Your task to perform on an android device: open app "Speedtest by Ookla" (install if not already installed) and enter user name: "hyena@outlook.com" and password: "terminators" Image 0: 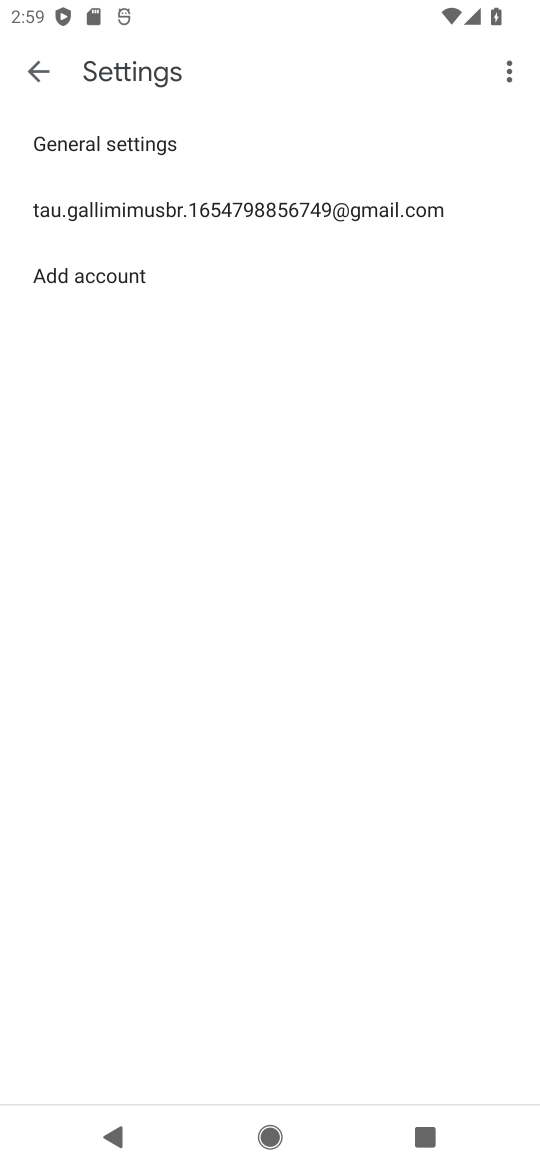
Step 0: press home button
Your task to perform on an android device: open app "Speedtest by Ookla" (install if not already installed) and enter user name: "hyena@outlook.com" and password: "terminators" Image 1: 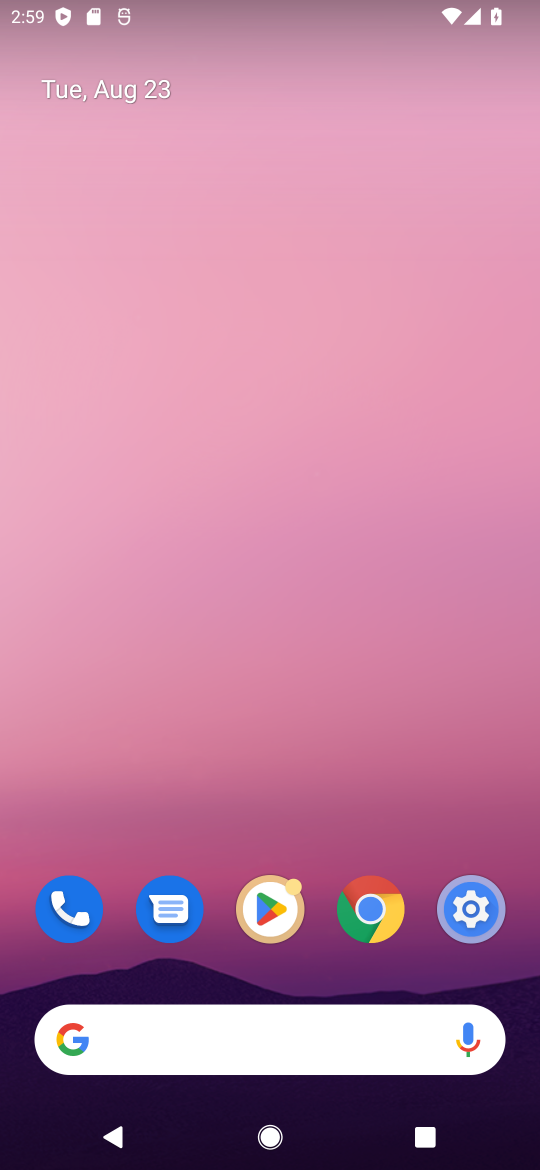
Step 1: click (265, 904)
Your task to perform on an android device: open app "Speedtest by Ookla" (install if not already installed) and enter user name: "hyena@outlook.com" and password: "terminators" Image 2: 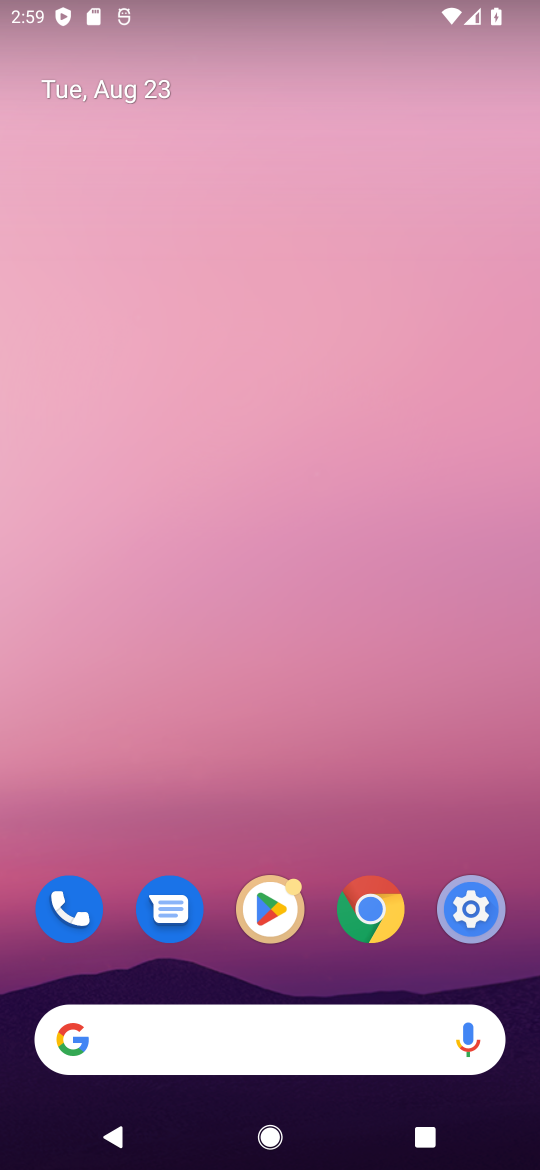
Step 2: click (271, 902)
Your task to perform on an android device: open app "Speedtest by Ookla" (install if not already installed) and enter user name: "hyena@outlook.com" and password: "terminators" Image 3: 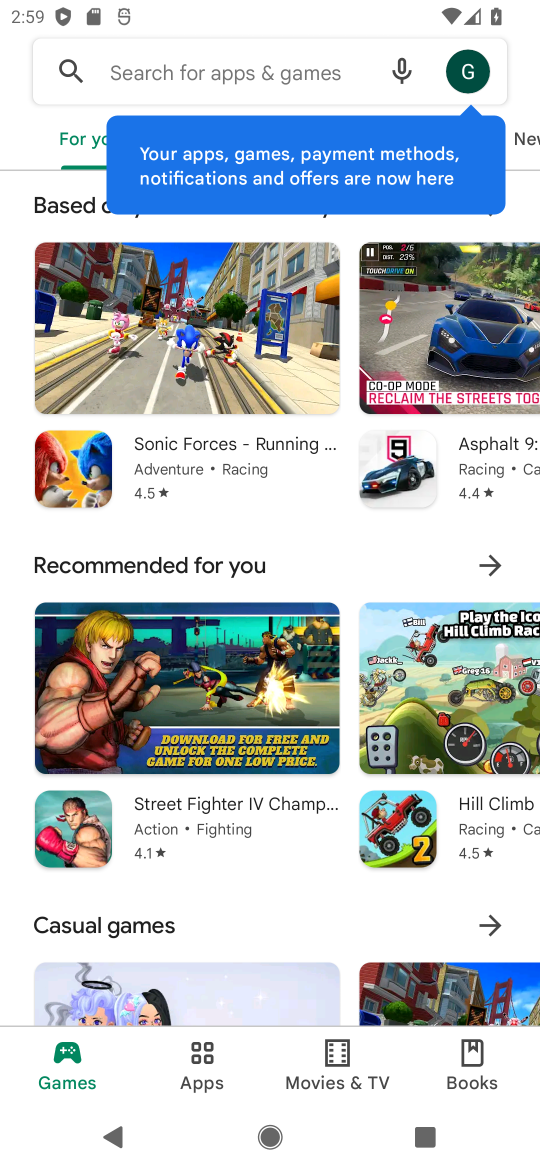
Step 3: click (161, 63)
Your task to perform on an android device: open app "Speedtest by Ookla" (install if not already installed) and enter user name: "hyena@outlook.com" and password: "terminators" Image 4: 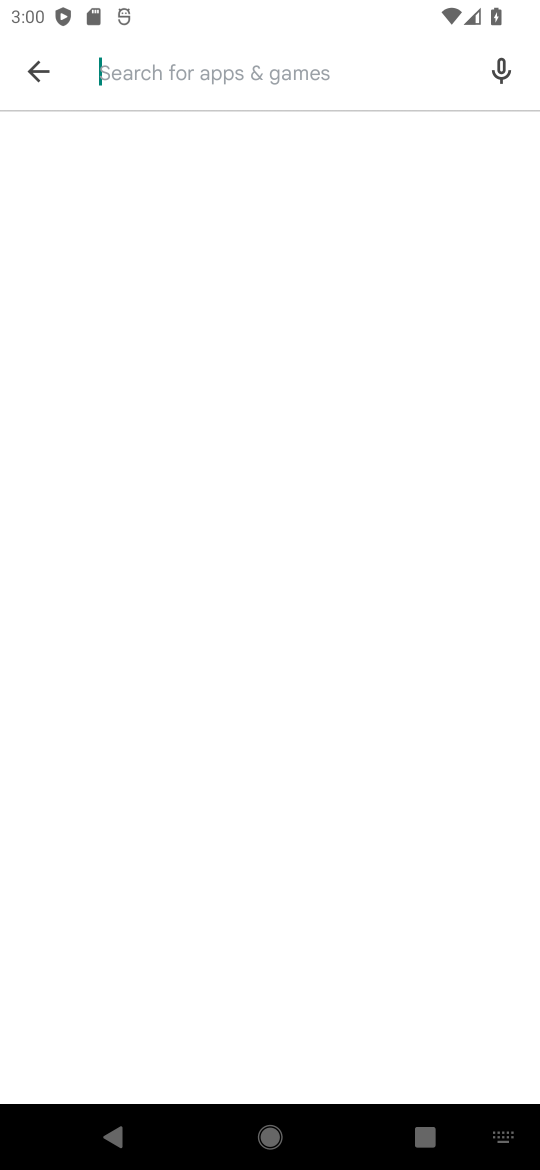
Step 4: type "Speedtest by Ookla"
Your task to perform on an android device: open app "Speedtest by Ookla" (install if not already installed) and enter user name: "hyena@outlook.com" and password: "terminators" Image 5: 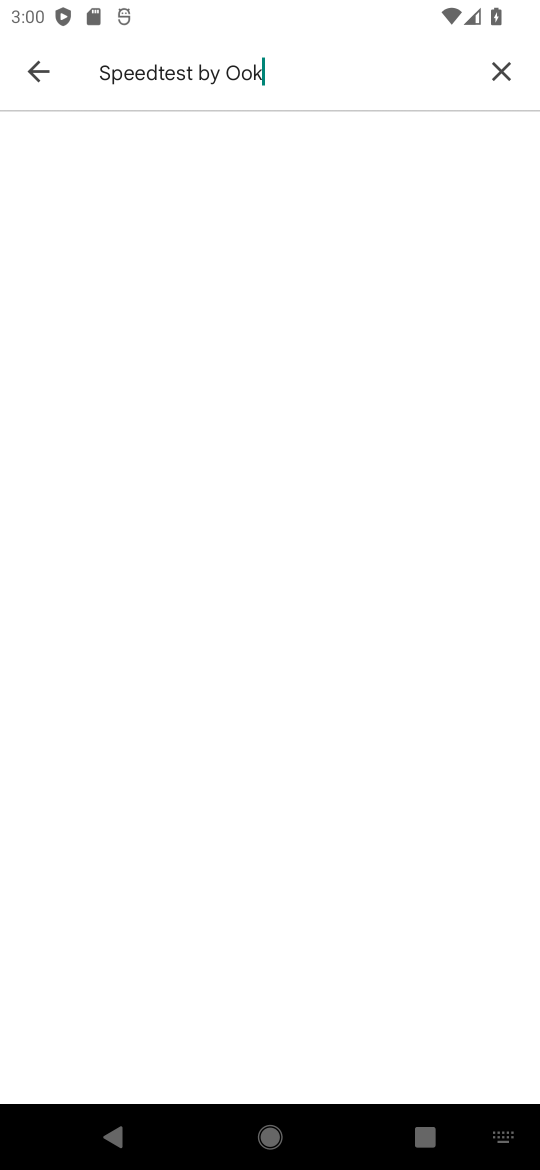
Step 5: type ""
Your task to perform on an android device: open app "Speedtest by Ookla" (install if not already installed) and enter user name: "hyena@outlook.com" and password: "terminators" Image 6: 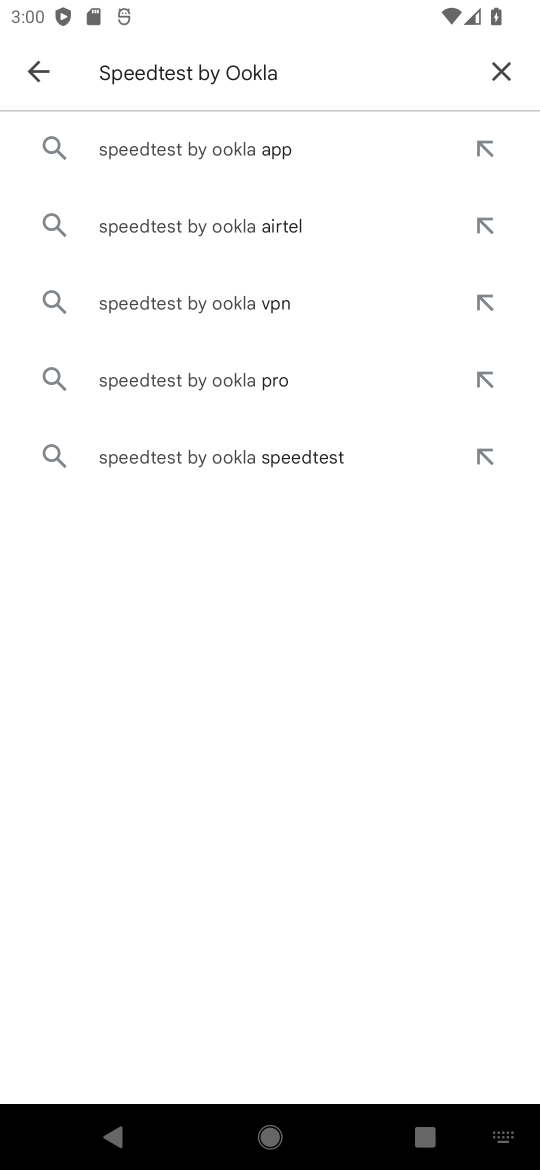
Step 6: click (169, 157)
Your task to perform on an android device: open app "Speedtest by Ookla" (install if not already installed) and enter user name: "hyena@outlook.com" and password: "terminators" Image 7: 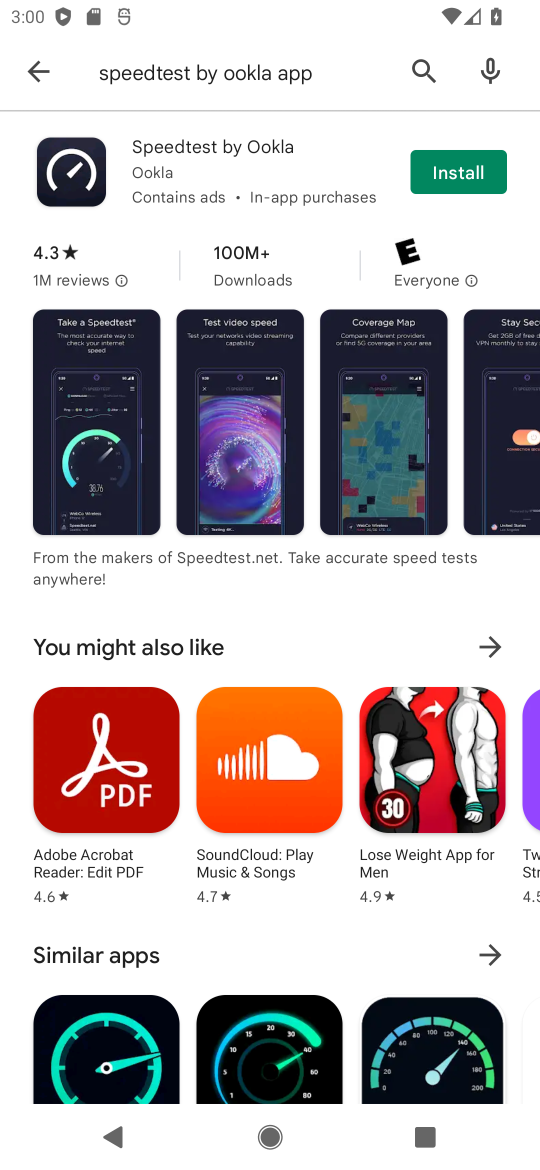
Step 7: click (456, 169)
Your task to perform on an android device: open app "Speedtest by Ookla" (install if not already installed) and enter user name: "hyena@outlook.com" and password: "terminators" Image 8: 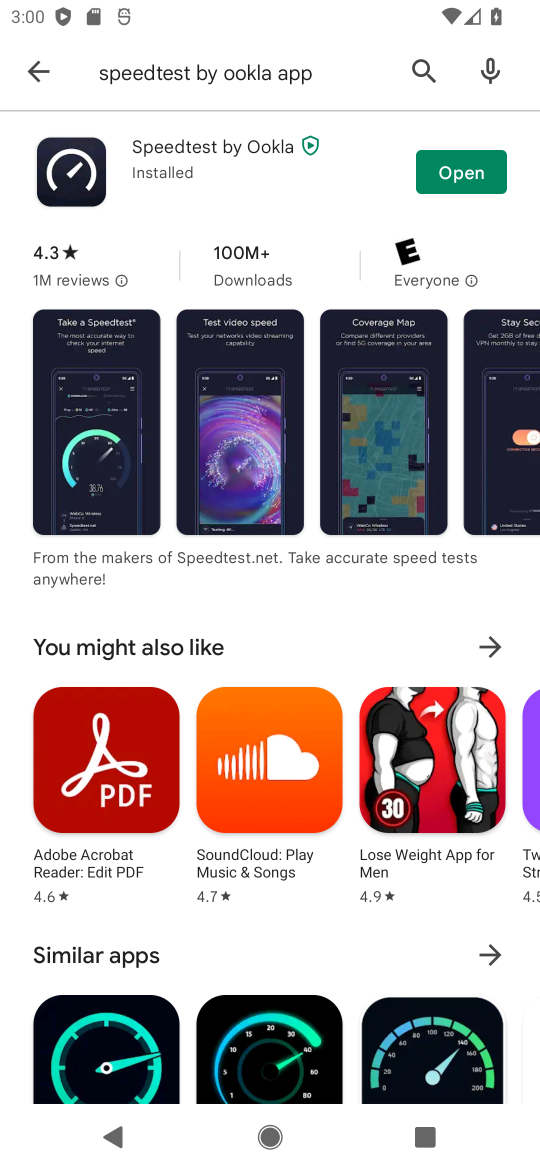
Step 8: click (461, 167)
Your task to perform on an android device: open app "Speedtest by Ookla" (install if not already installed) and enter user name: "hyena@outlook.com" and password: "terminators" Image 9: 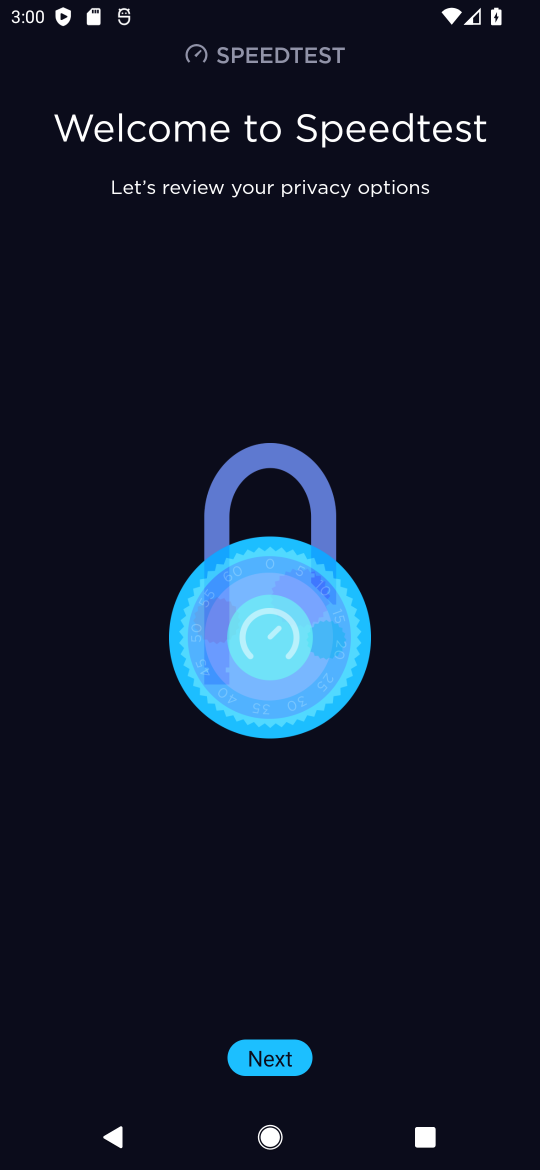
Step 9: click (271, 1055)
Your task to perform on an android device: open app "Speedtest by Ookla" (install if not already installed) and enter user name: "hyena@outlook.com" and password: "terminators" Image 10: 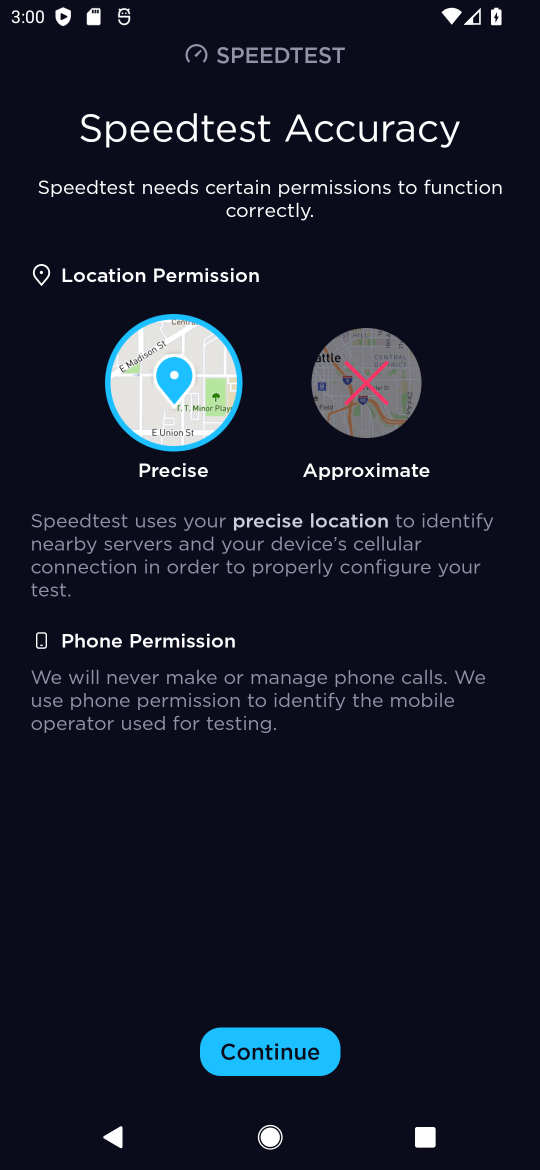
Step 10: click (271, 1055)
Your task to perform on an android device: open app "Speedtest by Ookla" (install if not already installed) and enter user name: "hyena@outlook.com" and password: "terminators" Image 11: 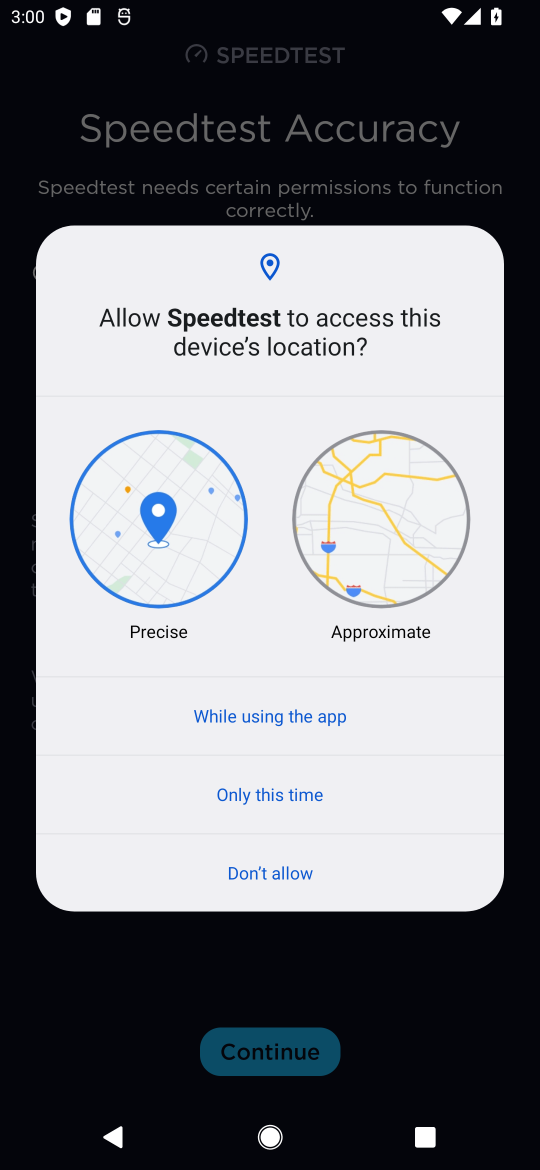
Step 11: click (262, 706)
Your task to perform on an android device: open app "Speedtest by Ookla" (install if not already installed) and enter user name: "hyena@outlook.com" and password: "terminators" Image 12: 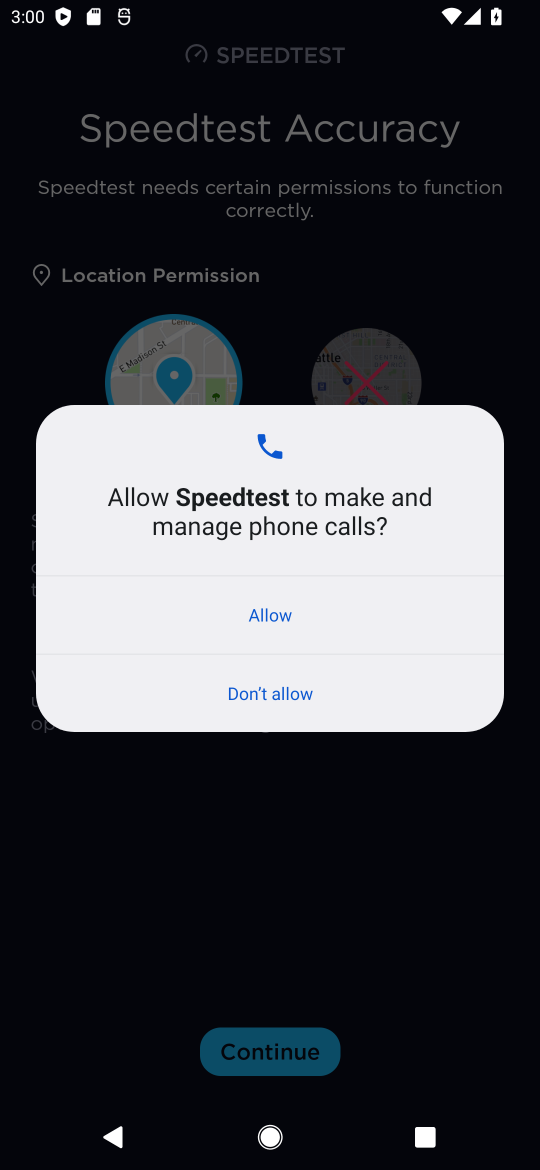
Step 12: click (259, 606)
Your task to perform on an android device: open app "Speedtest by Ookla" (install if not already installed) and enter user name: "hyena@outlook.com" and password: "terminators" Image 13: 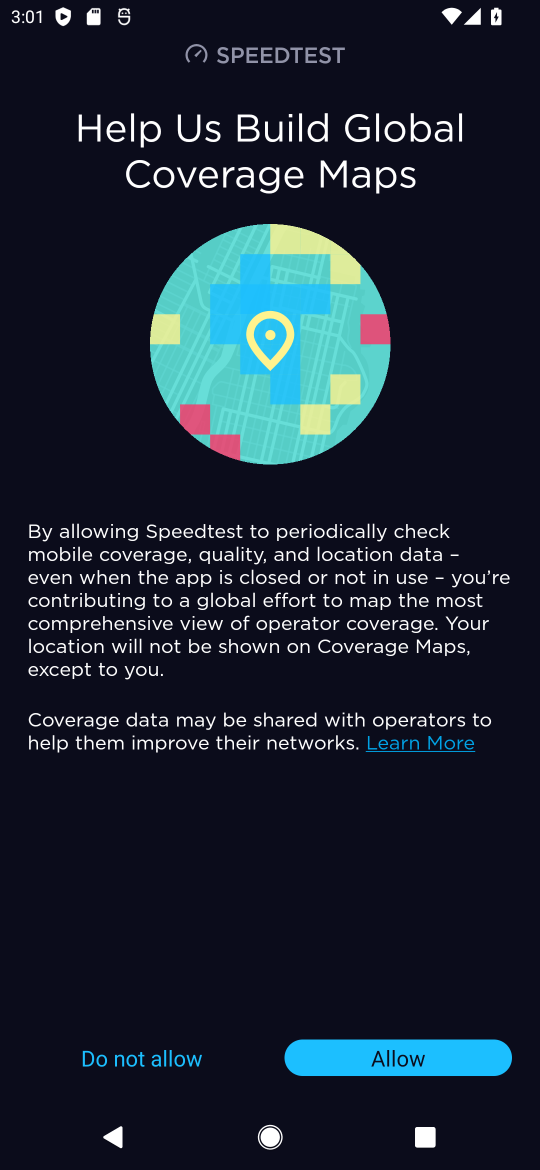
Step 13: click (405, 1058)
Your task to perform on an android device: open app "Speedtest by Ookla" (install if not already installed) and enter user name: "hyena@outlook.com" and password: "terminators" Image 14: 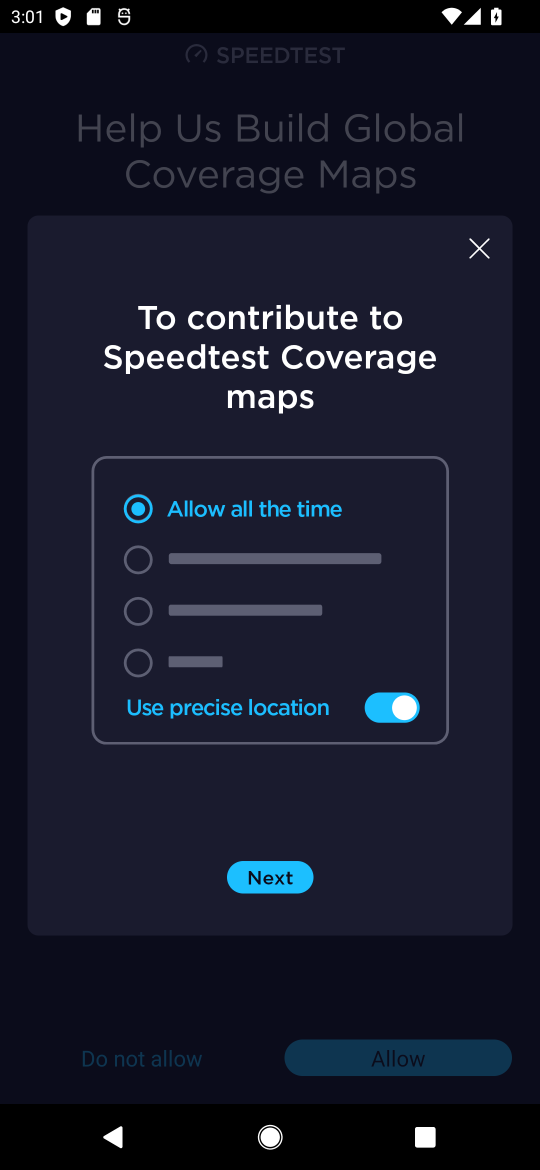
Step 14: click (275, 873)
Your task to perform on an android device: open app "Speedtest by Ookla" (install if not already installed) and enter user name: "hyena@outlook.com" and password: "terminators" Image 15: 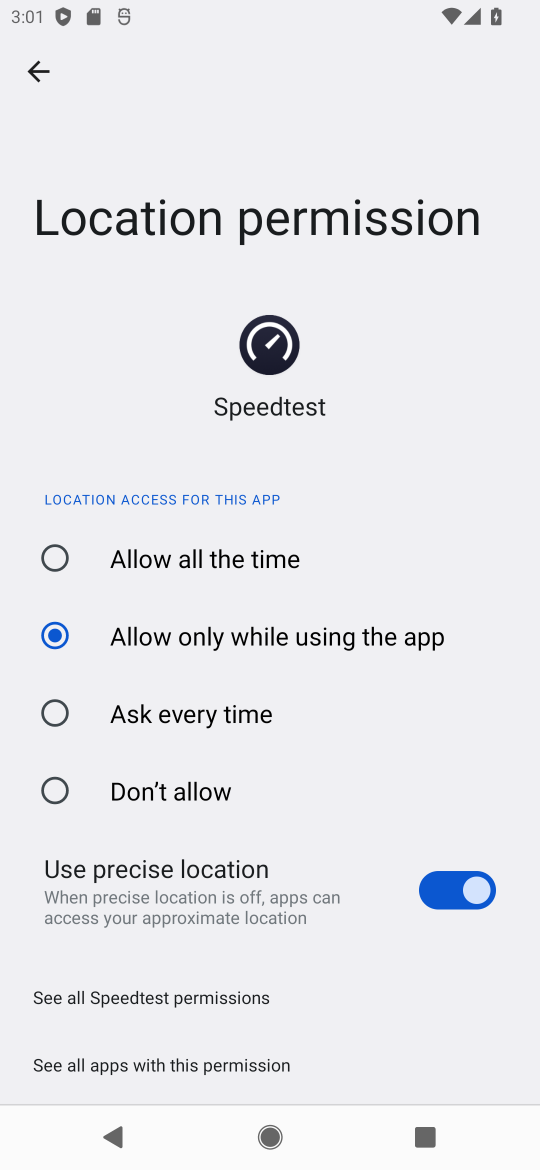
Step 15: click (43, 558)
Your task to perform on an android device: open app "Speedtest by Ookla" (install if not already installed) and enter user name: "hyena@outlook.com" and password: "terminators" Image 16: 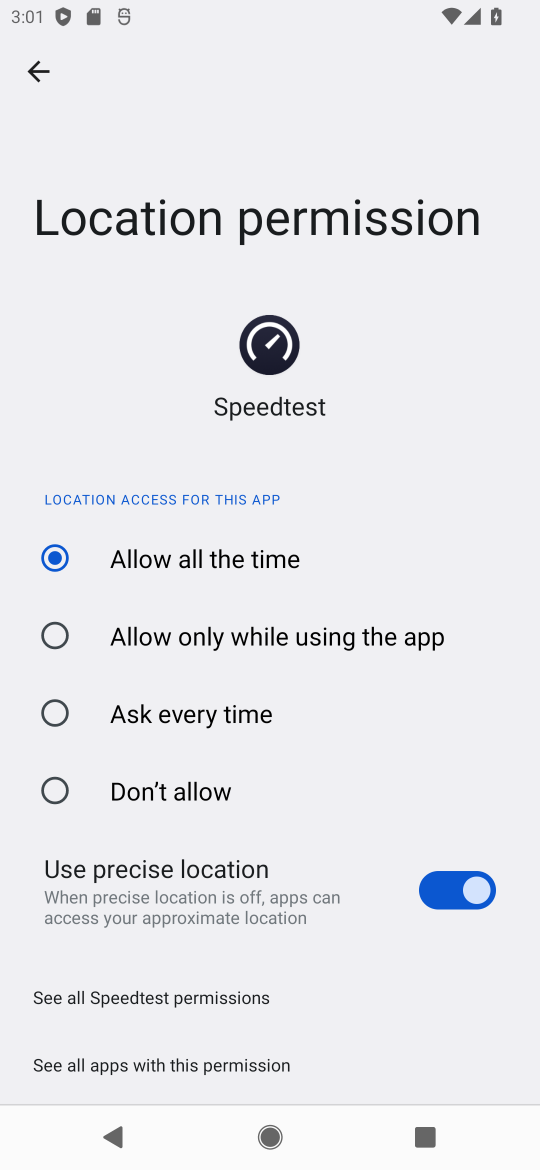
Step 16: click (43, 62)
Your task to perform on an android device: open app "Speedtest by Ookla" (install if not already installed) and enter user name: "hyena@outlook.com" and password: "terminators" Image 17: 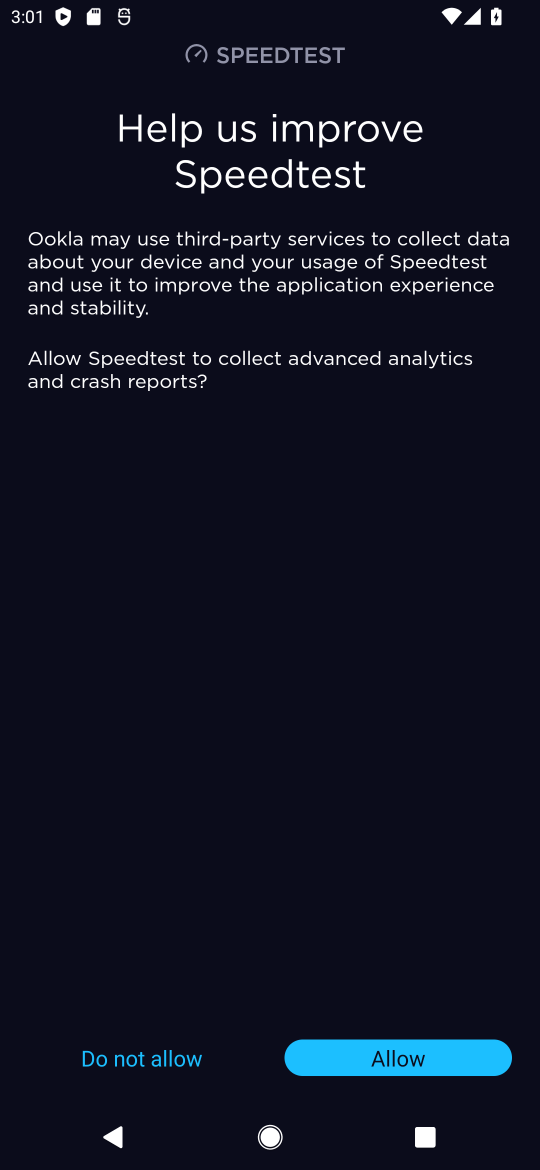
Step 17: click (397, 1058)
Your task to perform on an android device: open app "Speedtest by Ookla" (install if not already installed) and enter user name: "hyena@outlook.com" and password: "terminators" Image 18: 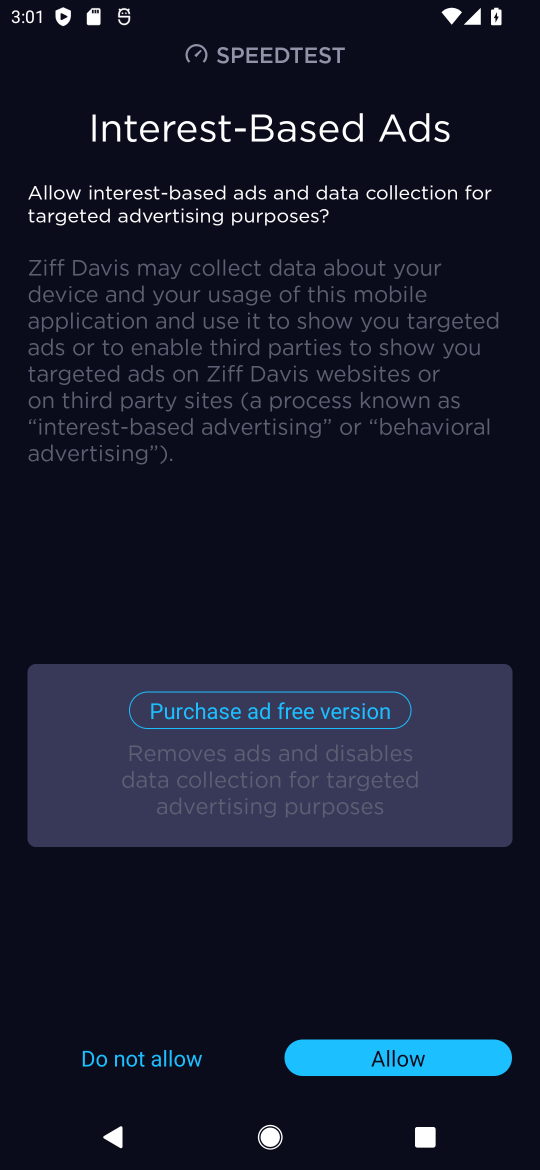
Step 18: click (394, 1066)
Your task to perform on an android device: open app "Speedtest by Ookla" (install if not already installed) and enter user name: "hyena@outlook.com" and password: "terminators" Image 19: 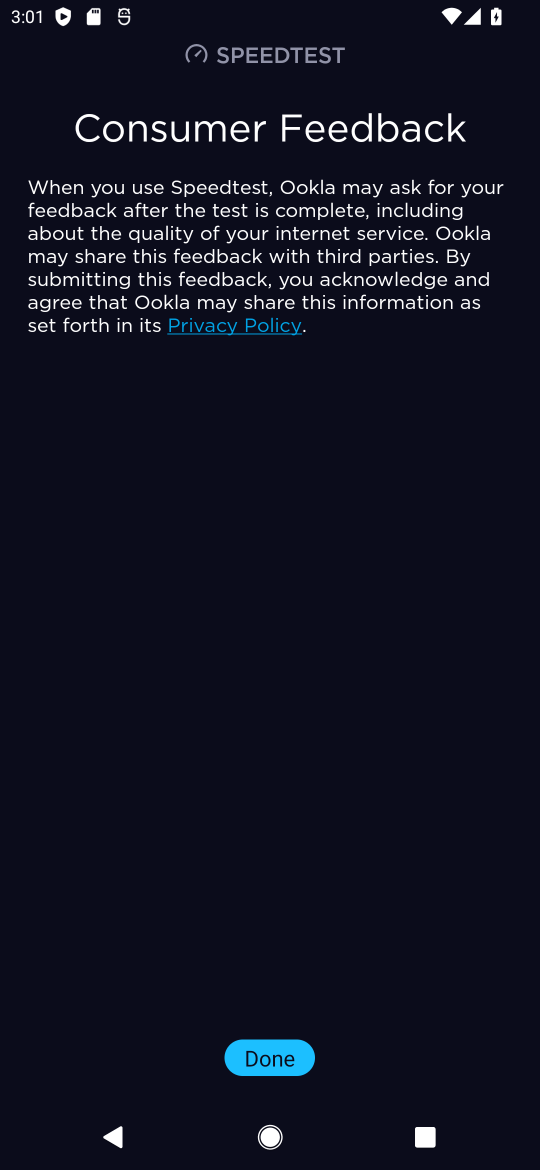
Step 19: click (273, 1058)
Your task to perform on an android device: open app "Speedtest by Ookla" (install if not already installed) and enter user name: "hyena@outlook.com" and password: "terminators" Image 20: 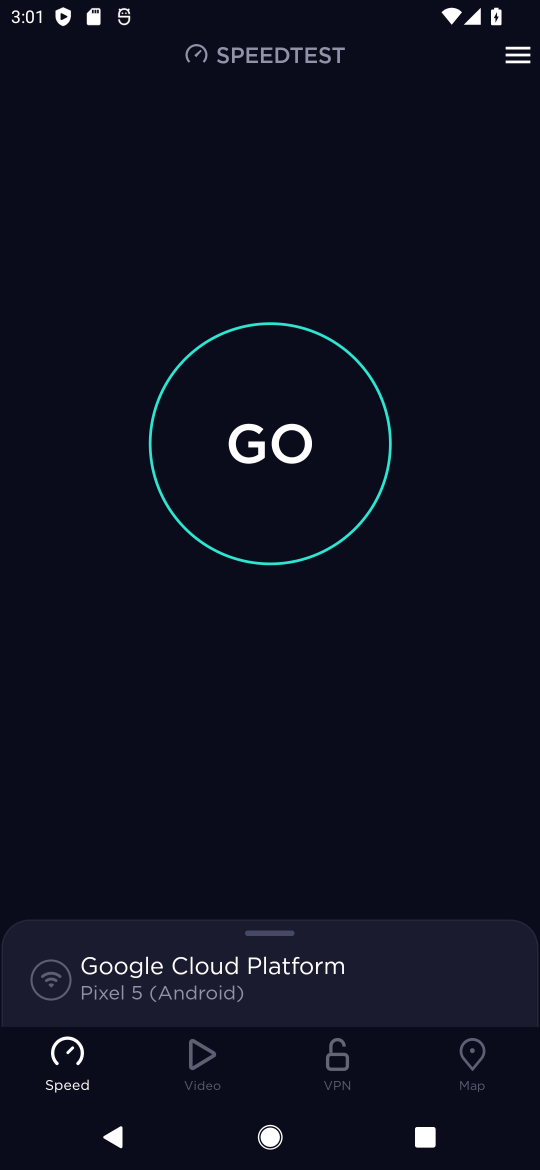
Step 20: click (472, 1056)
Your task to perform on an android device: open app "Speedtest by Ookla" (install if not already installed) and enter user name: "hyena@outlook.com" and password: "terminators" Image 21: 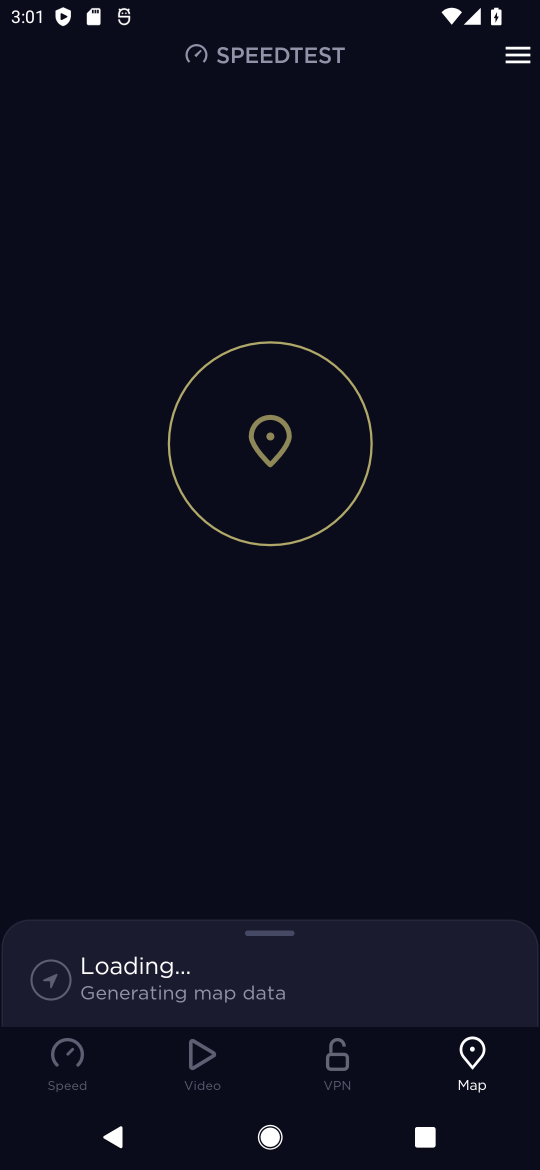
Step 21: click (509, 50)
Your task to perform on an android device: open app "Speedtest by Ookla" (install if not already installed) and enter user name: "hyena@outlook.com" and password: "terminators" Image 22: 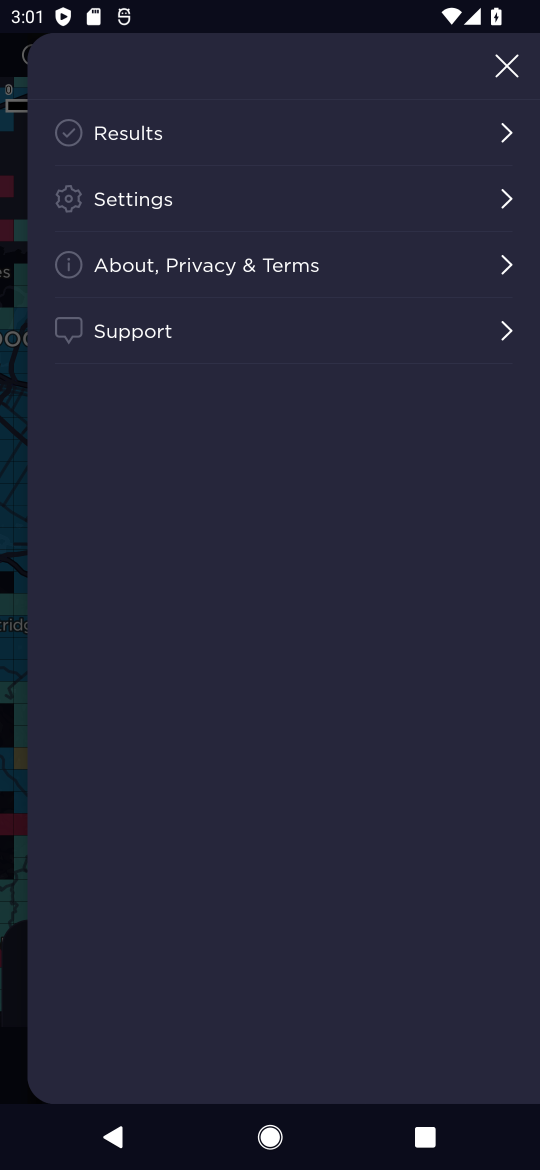
Step 22: click (496, 198)
Your task to perform on an android device: open app "Speedtest by Ookla" (install if not already installed) and enter user name: "hyena@outlook.com" and password: "terminators" Image 23: 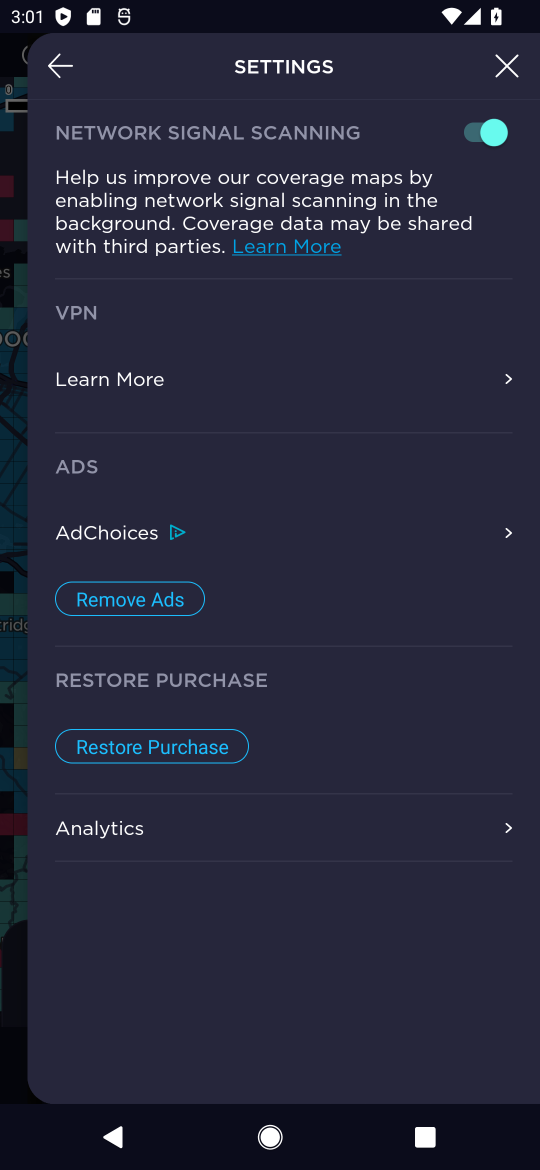
Step 23: task complete